Your task to perform on an android device: Open display settings Image 0: 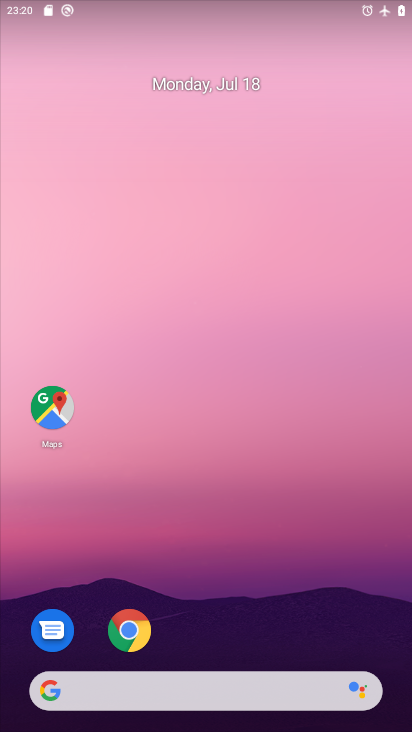
Step 0: drag from (292, 633) to (283, 319)
Your task to perform on an android device: Open display settings Image 1: 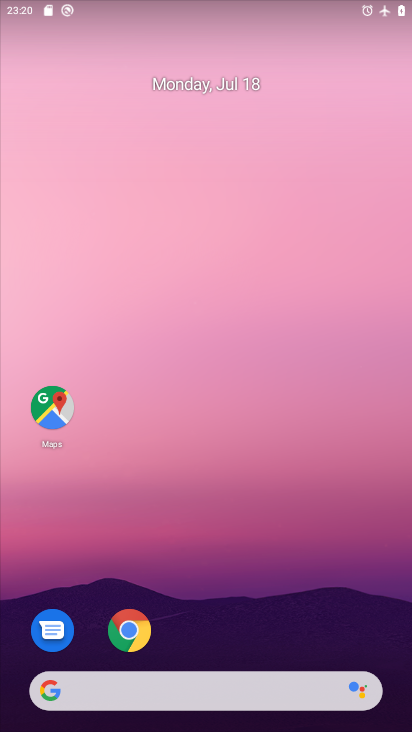
Step 1: drag from (242, 679) to (244, 258)
Your task to perform on an android device: Open display settings Image 2: 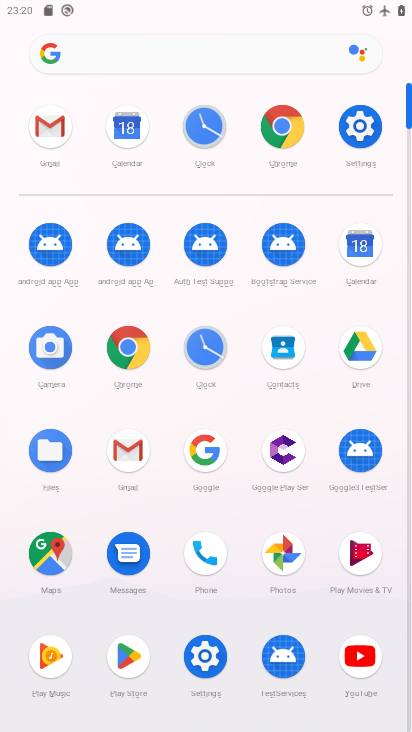
Step 2: click (348, 128)
Your task to perform on an android device: Open display settings Image 3: 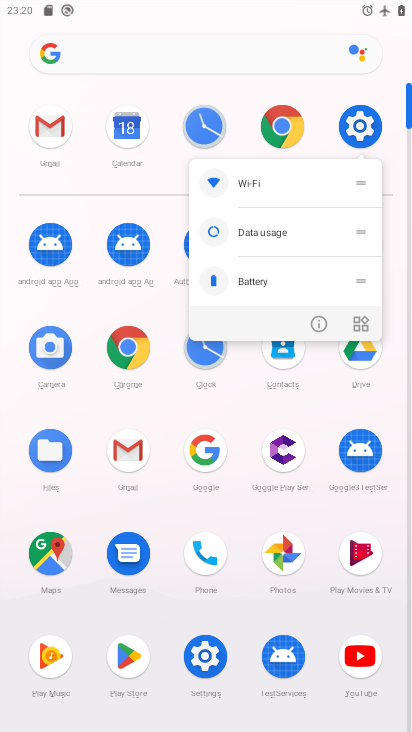
Step 3: click (366, 118)
Your task to perform on an android device: Open display settings Image 4: 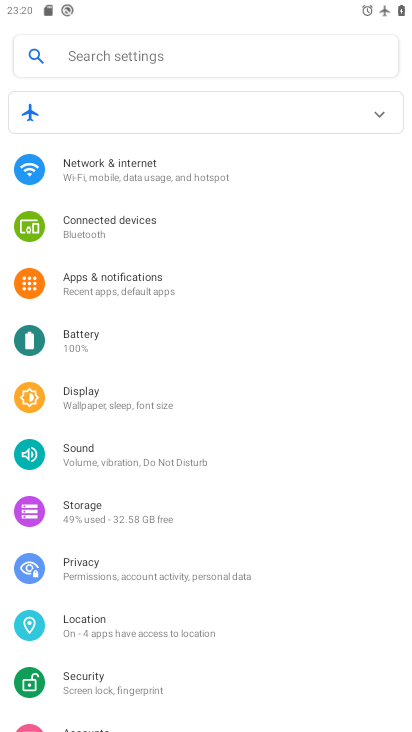
Step 4: click (104, 398)
Your task to perform on an android device: Open display settings Image 5: 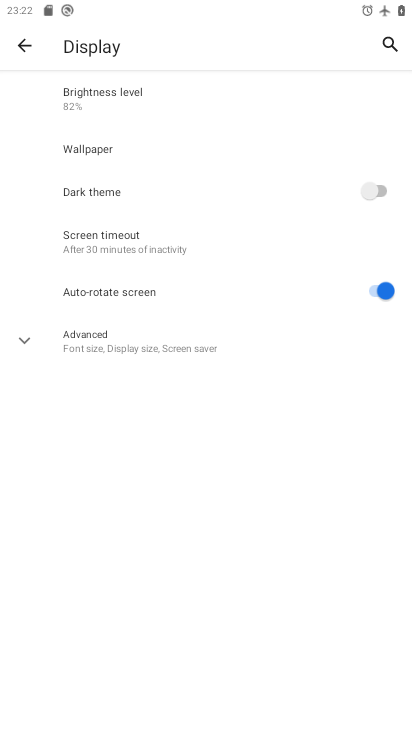
Step 5: task complete